Your task to perform on an android device: turn off location Image 0: 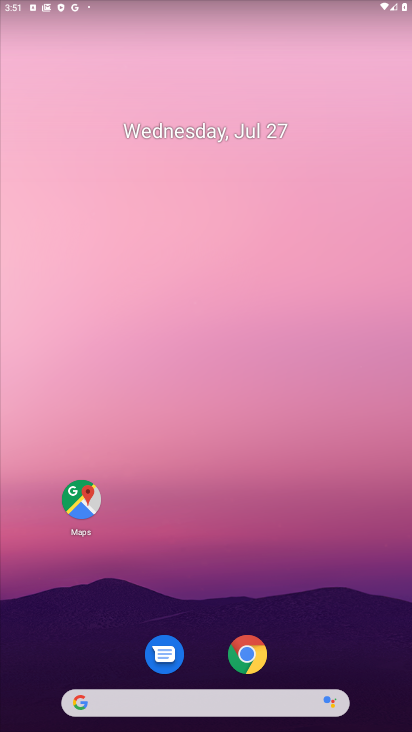
Step 0: drag from (185, 700) to (248, 134)
Your task to perform on an android device: turn off location Image 1: 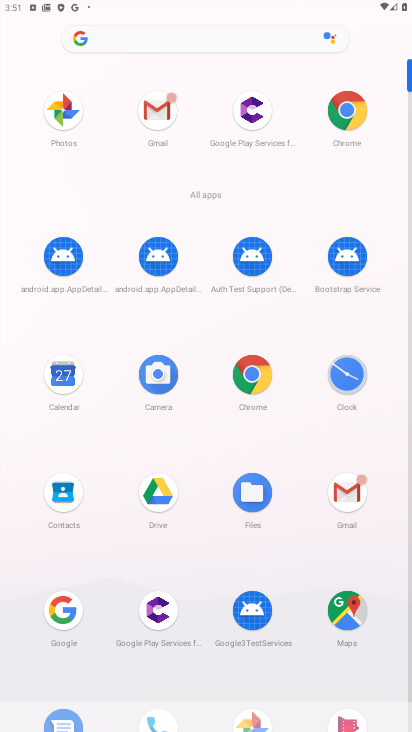
Step 1: drag from (209, 652) to (216, 174)
Your task to perform on an android device: turn off location Image 2: 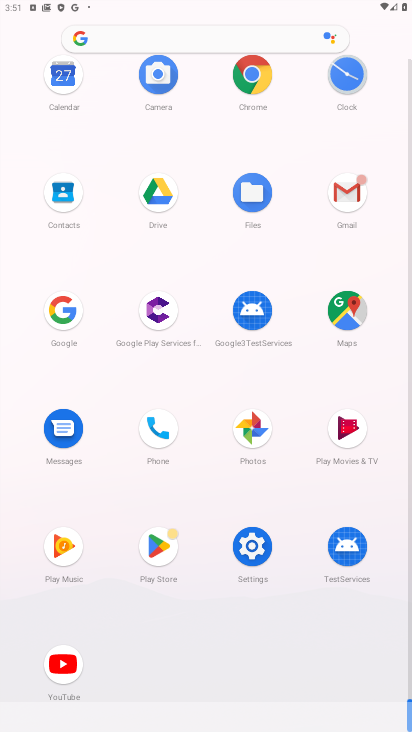
Step 2: click (249, 559)
Your task to perform on an android device: turn off location Image 3: 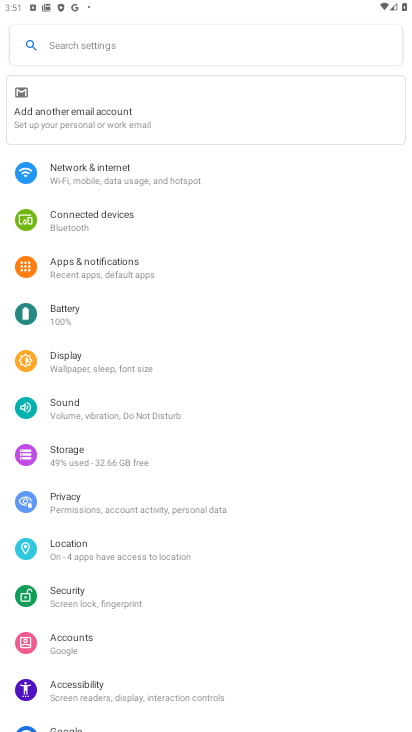
Step 3: click (86, 556)
Your task to perform on an android device: turn off location Image 4: 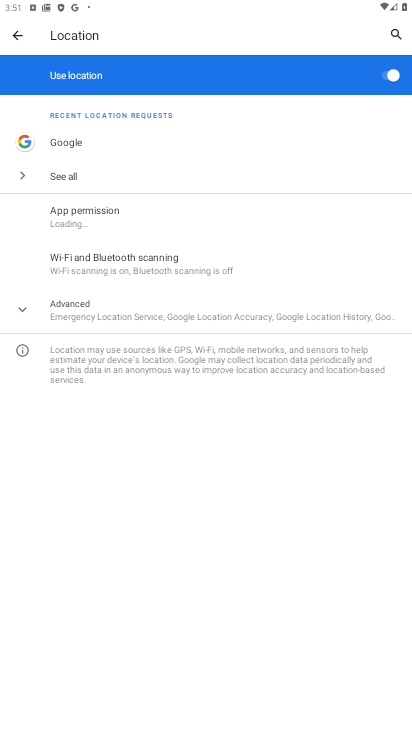
Step 4: click (391, 79)
Your task to perform on an android device: turn off location Image 5: 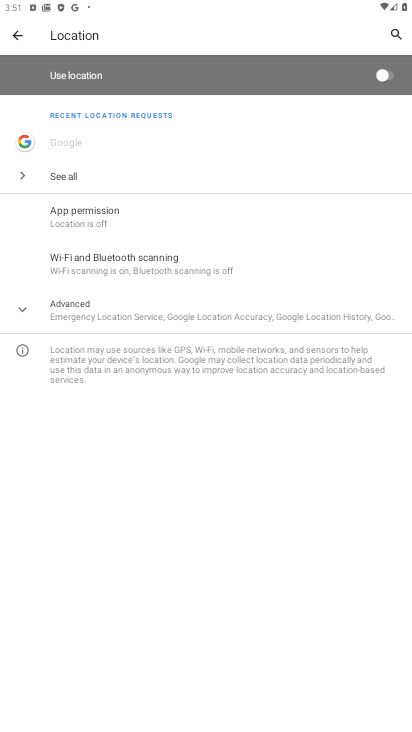
Step 5: task complete